Your task to perform on an android device: star an email in the gmail app Image 0: 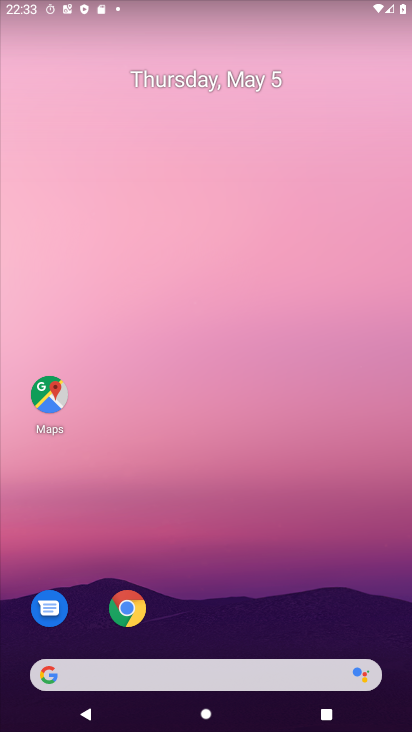
Step 0: drag from (256, 638) to (210, 36)
Your task to perform on an android device: star an email in the gmail app Image 1: 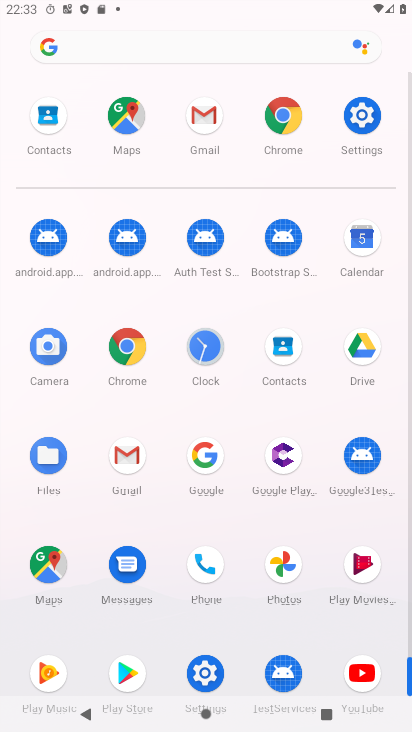
Step 1: click (108, 451)
Your task to perform on an android device: star an email in the gmail app Image 2: 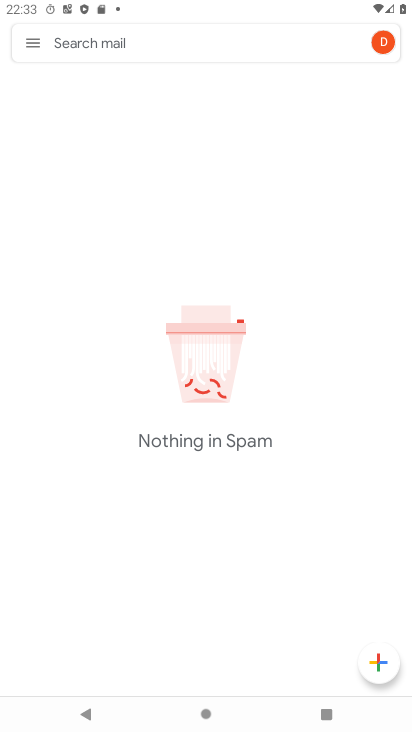
Step 2: click (30, 50)
Your task to perform on an android device: star an email in the gmail app Image 3: 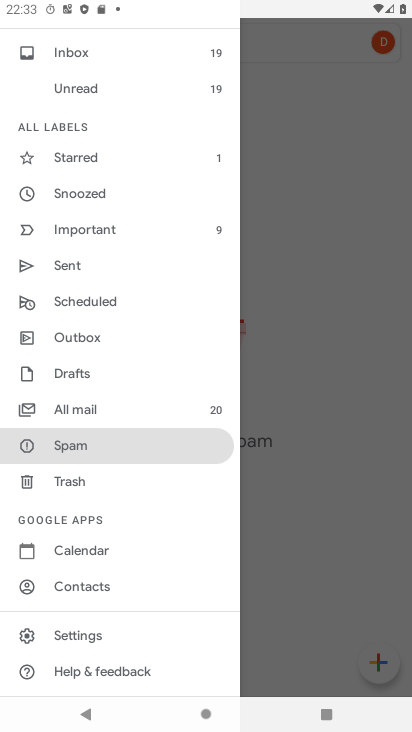
Step 3: click (102, 51)
Your task to perform on an android device: star an email in the gmail app Image 4: 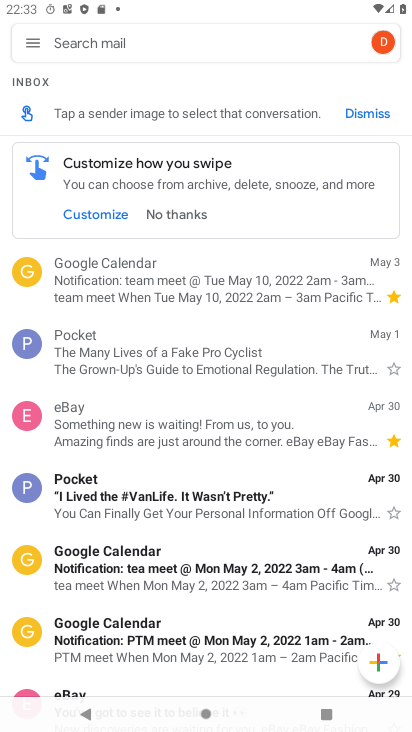
Step 4: click (398, 369)
Your task to perform on an android device: star an email in the gmail app Image 5: 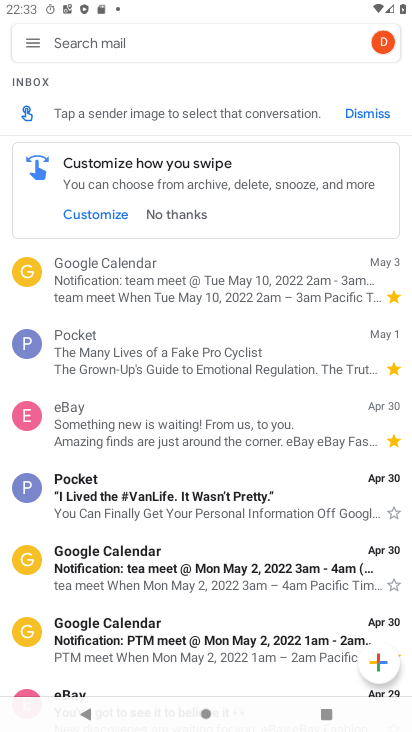
Step 5: task complete